Your task to perform on an android device: Search for Italian restaurants on Maps Image 0: 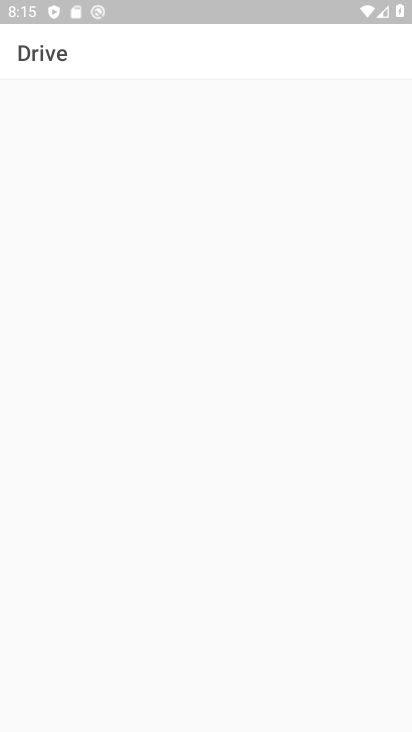
Step 0: press home button
Your task to perform on an android device: Search for Italian restaurants on Maps Image 1: 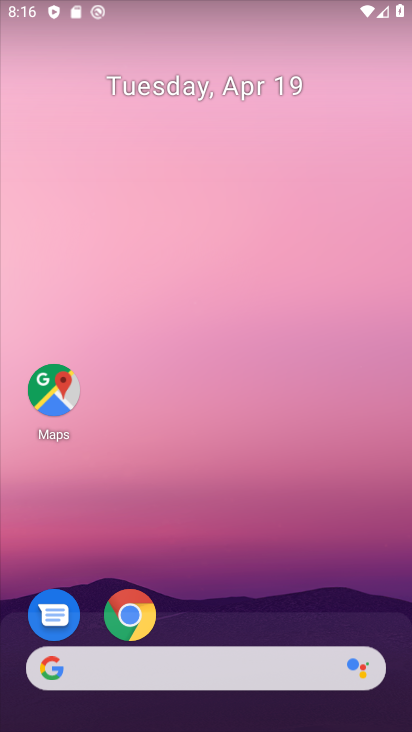
Step 1: click (57, 397)
Your task to perform on an android device: Search for Italian restaurants on Maps Image 2: 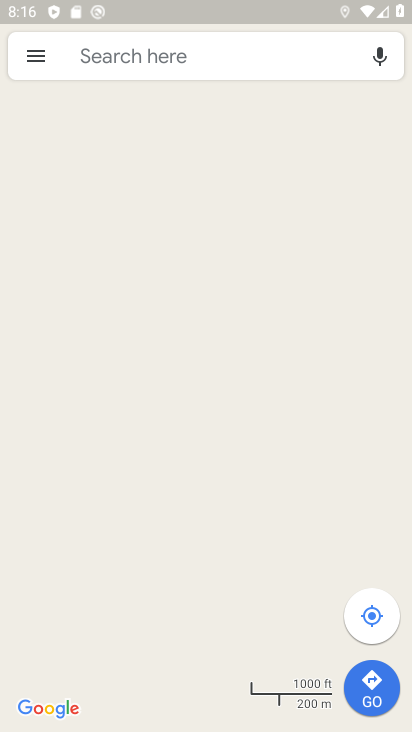
Step 2: click (151, 61)
Your task to perform on an android device: Search for Italian restaurants on Maps Image 3: 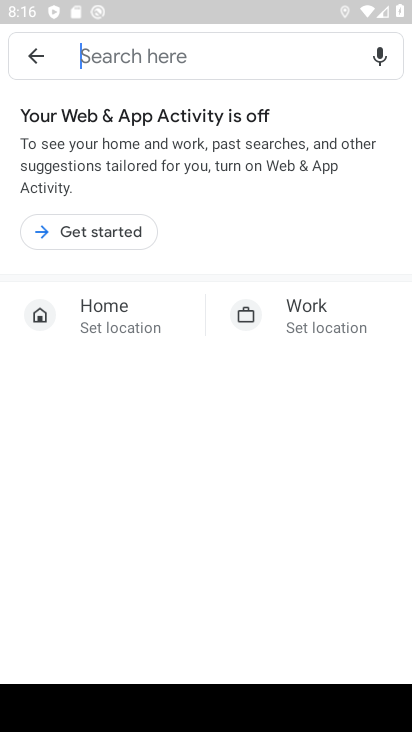
Step 3: type "Italian restaurants"
Your task to perform on an android device: Search for Italian restaurants on Maps Image 4: 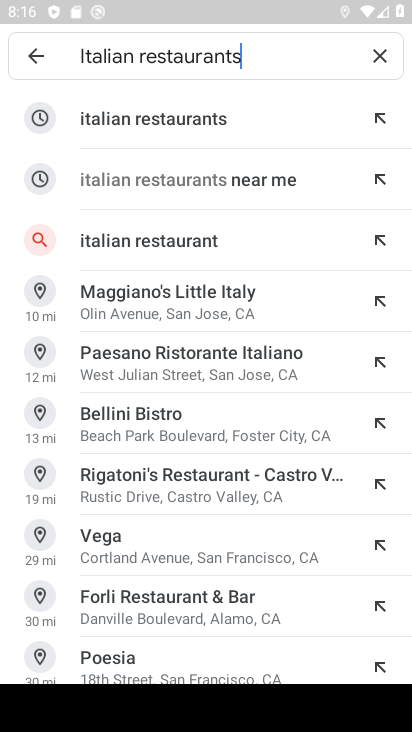
Step 4: click (209, 121)
Your task to perform on an android device: Search for Italian restaurants on Maps Image 5: 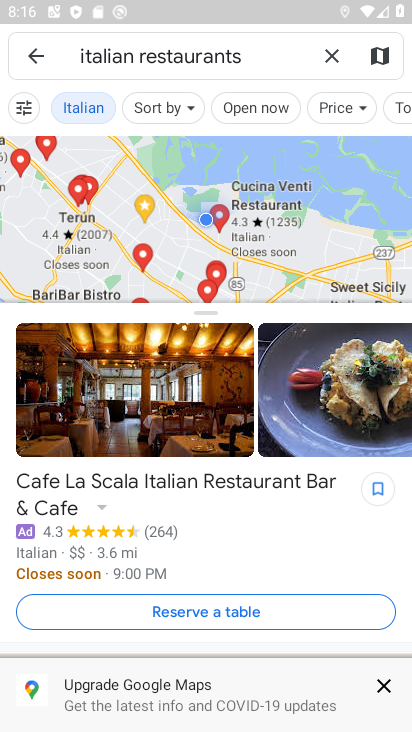
Step 5: task complete